Your task to perform on an android device: read, delete, or share a saved page in the chrome app Image 0: 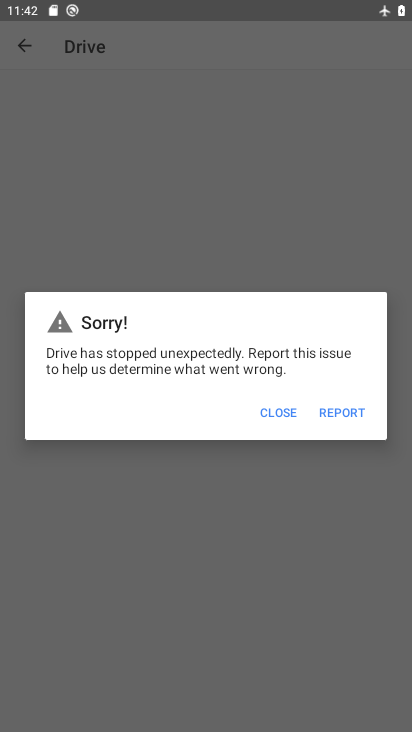
Step 0: press home button
Your task to perform on an android device: read, delete, or share a saved page in the chrome app Image 1: 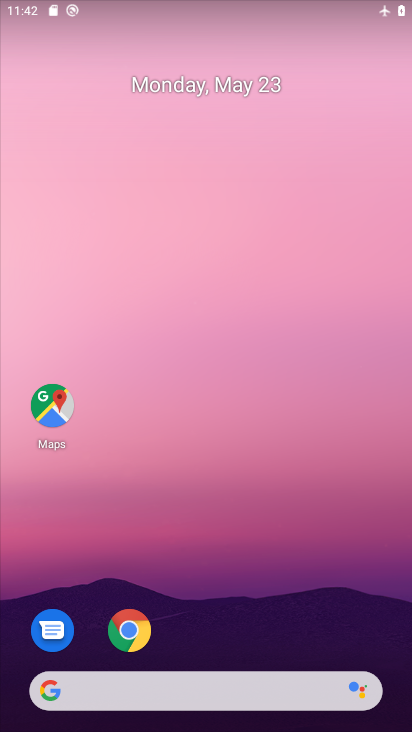
Step 1: drag from (267, 386) to (329, 112)
Your task to perform on an android device: read, delete, or share a saved page in the chrome app Image 2: 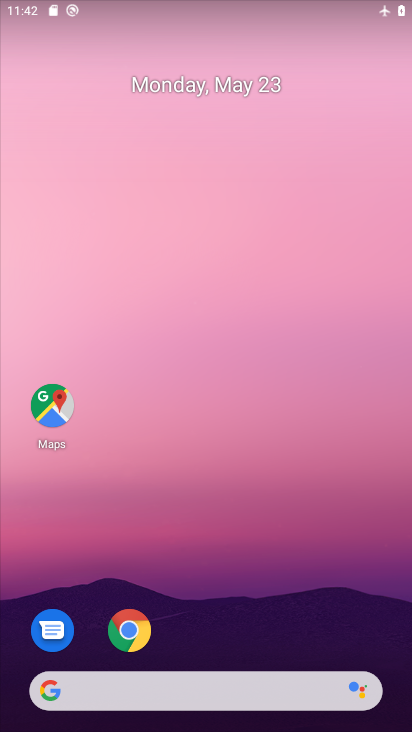
Step 2: click (136, 628)
Your task to perform on an android device: read, delete, or share a saved page in the chrome app Image 3: 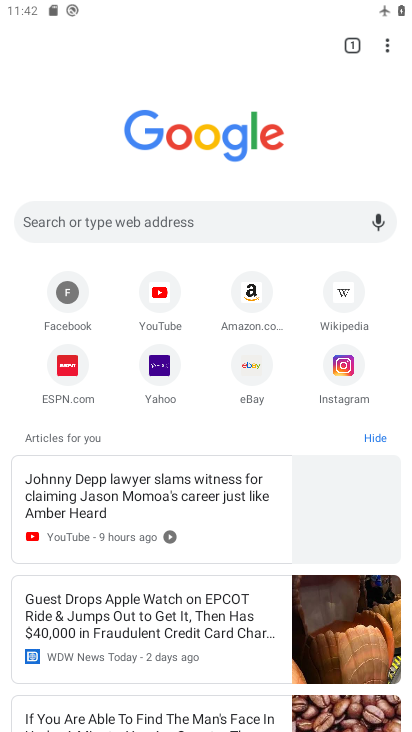
Step 3: click (385, 48)
Your task to perform on an android device: read, delete, or share a saved page in the chrome app Image 4: 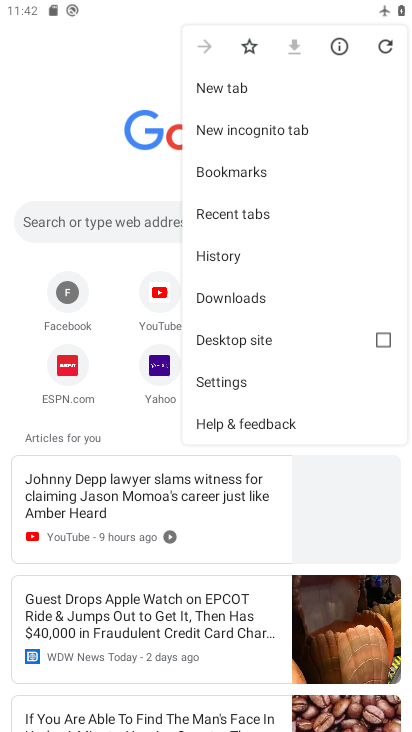
Step 4: click (230, 298)
Your task to perform on an android device: read, delete, or share a saved page in the chrome app Image 5: 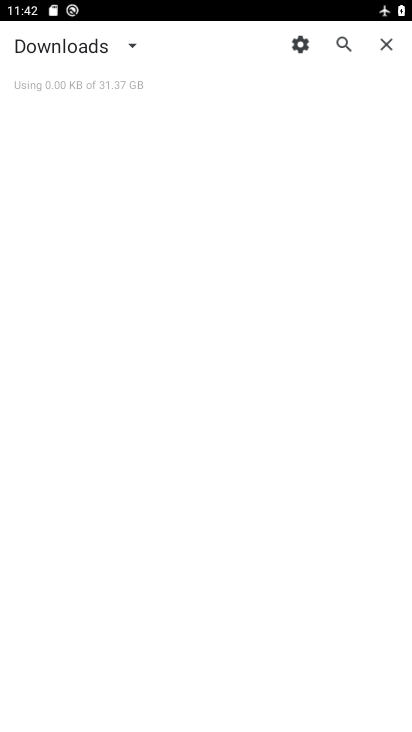
Step 5: task complete